Your task to perform on an android device: check battery use Image 0: 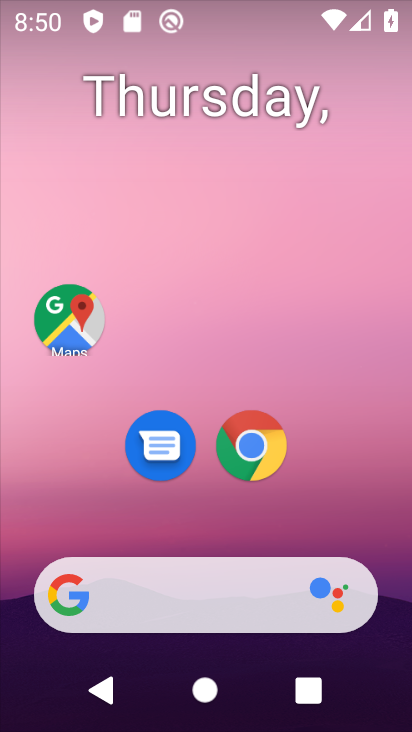
Step 0: drag from (385, 558) to (360, 23)
Your task to perform on an android device: check battery use Image 1: 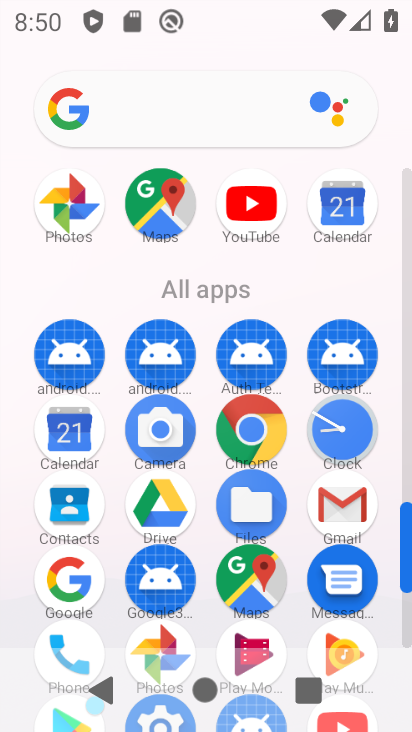
Step 1: drag from (406, 424) to (409, 368)
Your task to perform on an android device: check battery use Image 2: 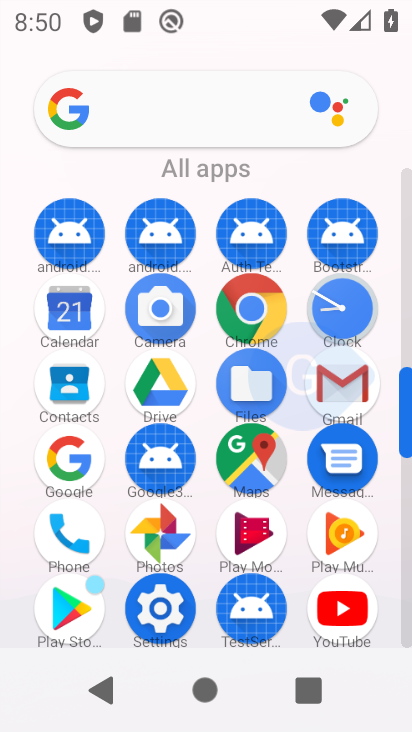
Step 2: click (162, 605)
Your task to perform on an android device: check battery use Image 3: 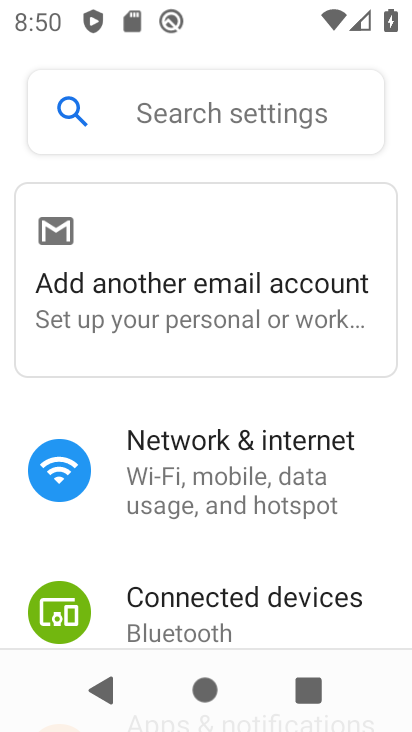
Step 3: drag from (360, 471) to (342, 105)
Your task to perform on an android device: check battery use Image 4: 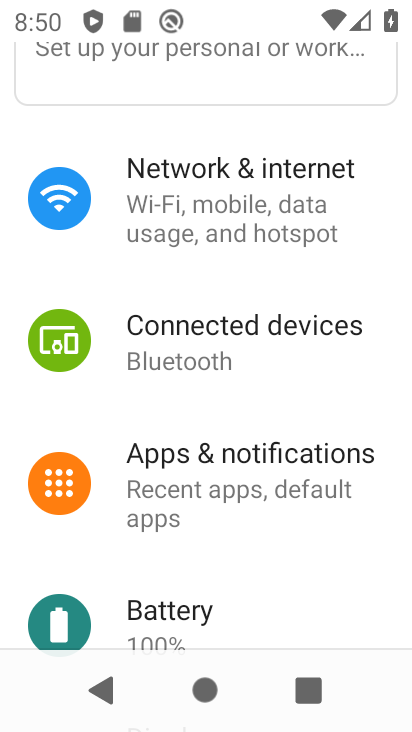
Step 4: click (131, 623)
Your task to perform on an android device: check battery use Image 5: 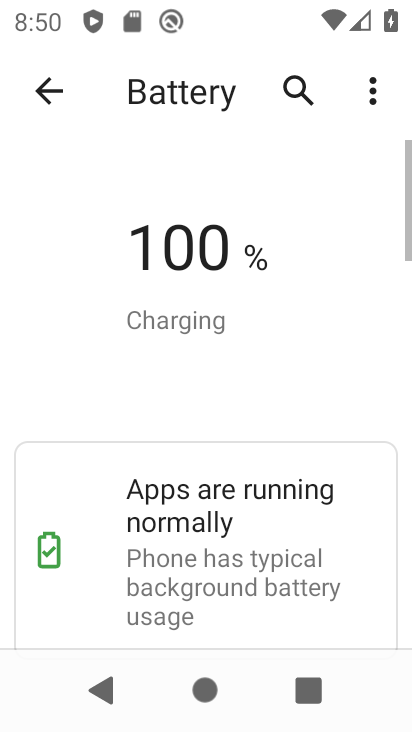
Step 5: click (369, 94)
Your task to perform on an android device: check battery use Image 6: 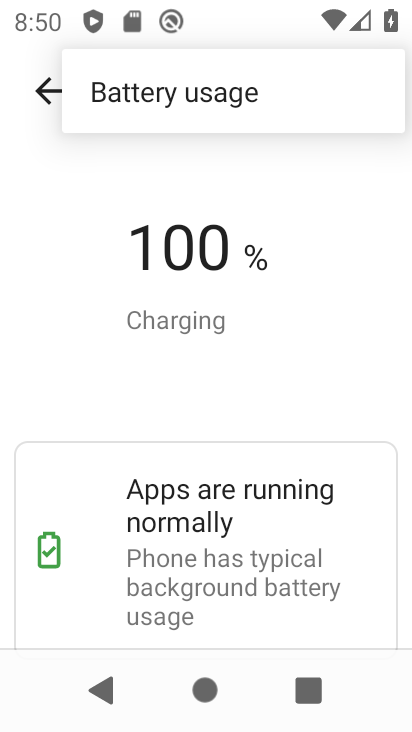
Step 6: click (180, 107)
Your task to perform on an android device: check battery use Image 7: 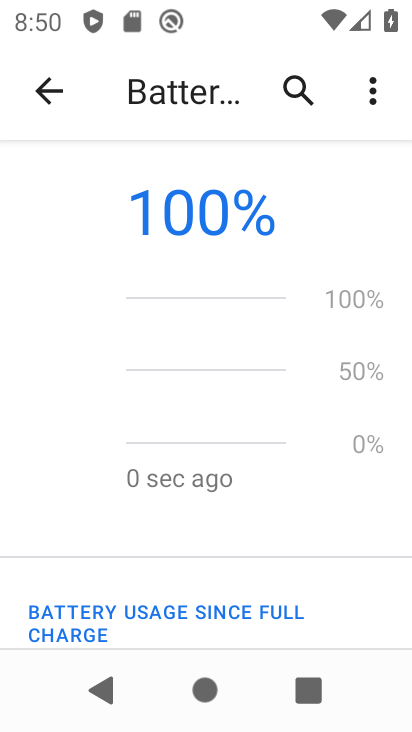
Step 7: task complete